Your task to perform on an android device: add a contact Image 0: 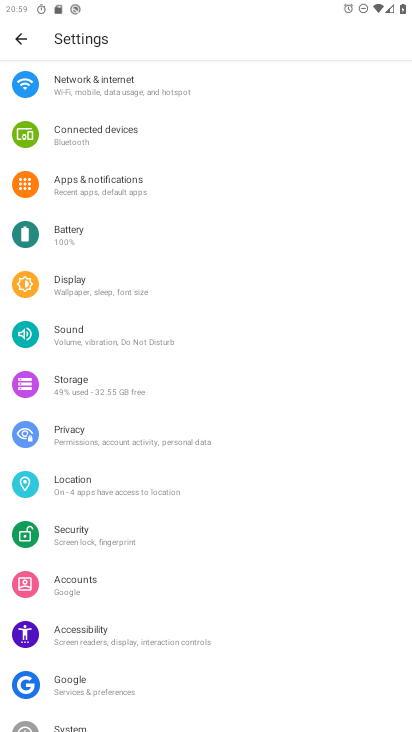
Step 0: drag from (164, 604) to (204, 373)
Your task to perform on an android device: add a contact Image 1: 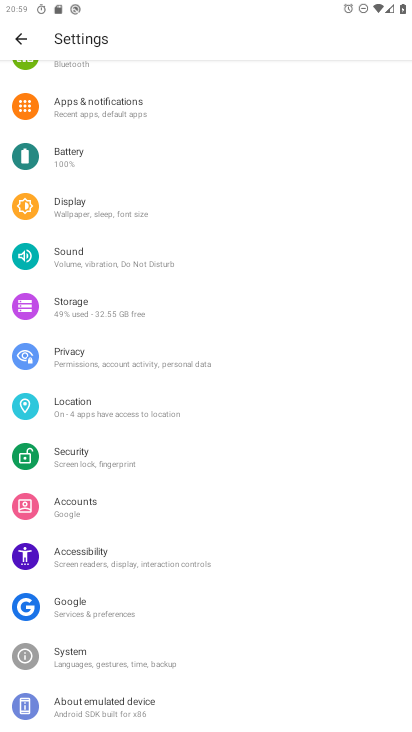
Step 1: press home button
Your task to perform on an android device: add a contact Image 2: 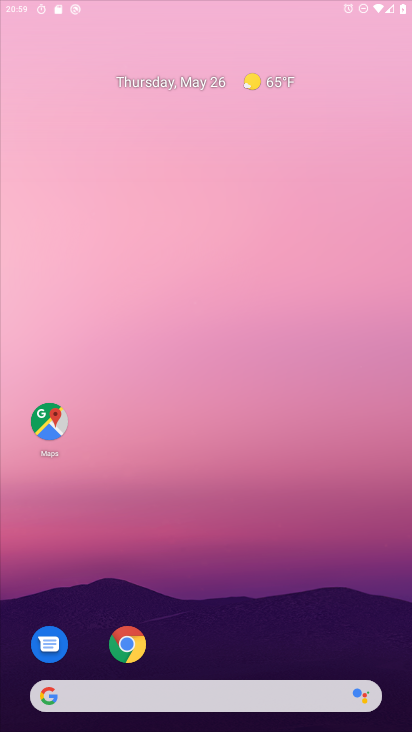
Step 2: drag from (185, 680) to (266, 386)
Your task to perform on an android device: add a contact Image 3: 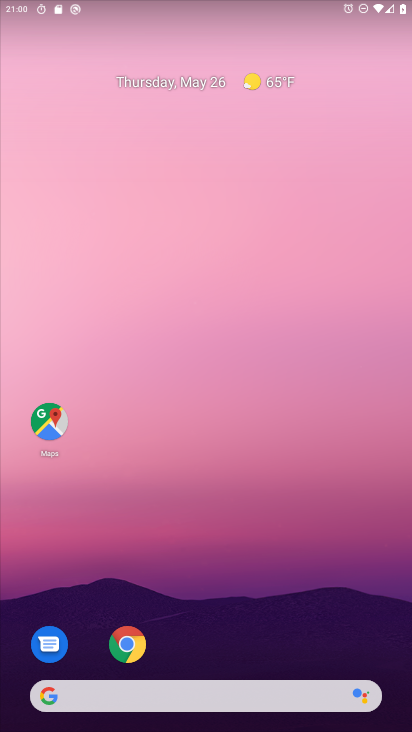
Step 3: drag from (189, 627) to (237, 298)
Your task to perform on an android device: add a contact Image 4: 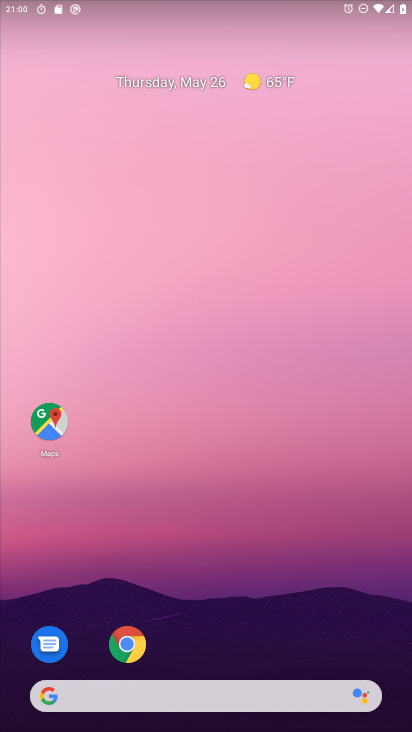
Step 4: drag from (191, 581) to (194, 245)
Your task to perform on an android device: add a contact Image 5: 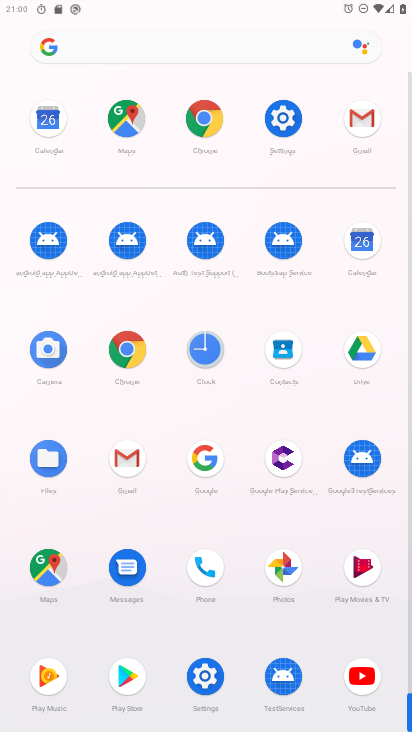
Step 5: click (274, 348)
Your task to perform on an android device: add a contact Image 6: 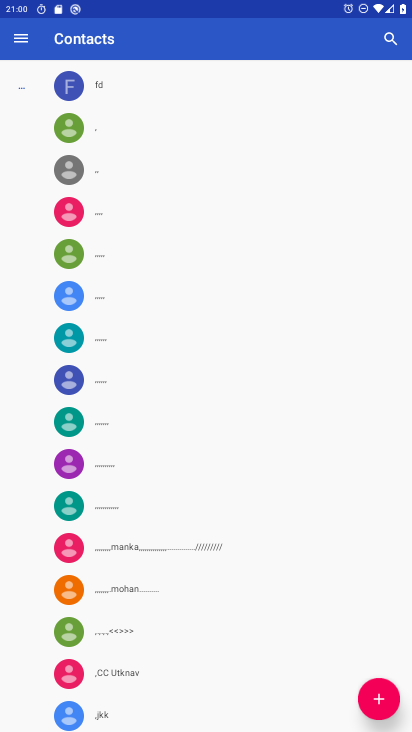
Step 6: click (370, 696)
Your task to perform on an android device: add a contact Image 7: 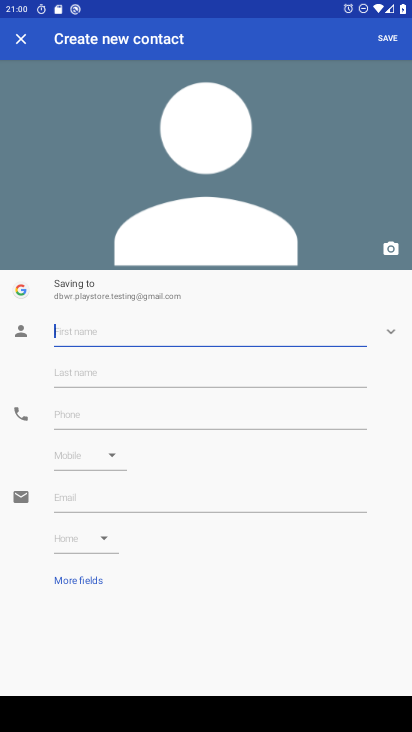
Step 7: click (130, 343)
Your task to perform on an android device: add a contact Image 8: 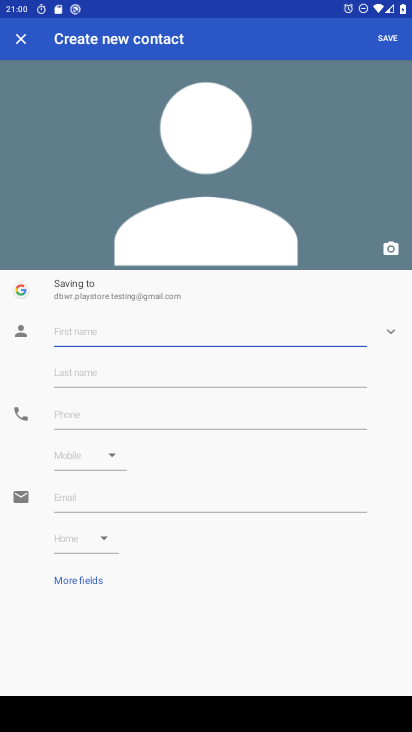
Step 8: type "nhjlk"
Your task to perform on an android device: add a contact Image 9: 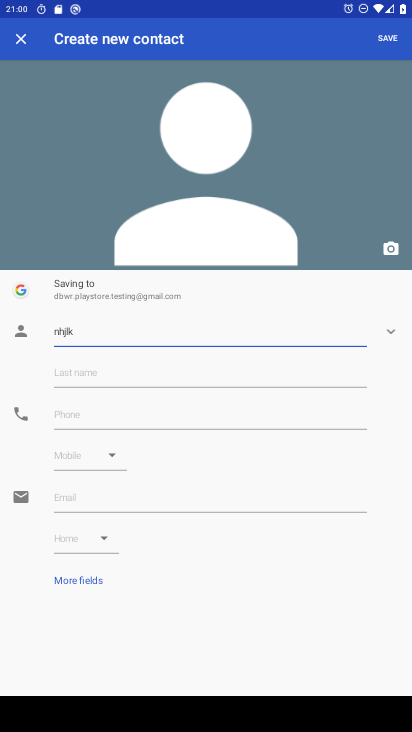
Step 9: click (401, 39)
Your task to perform on an android device: add a contact Image 10: 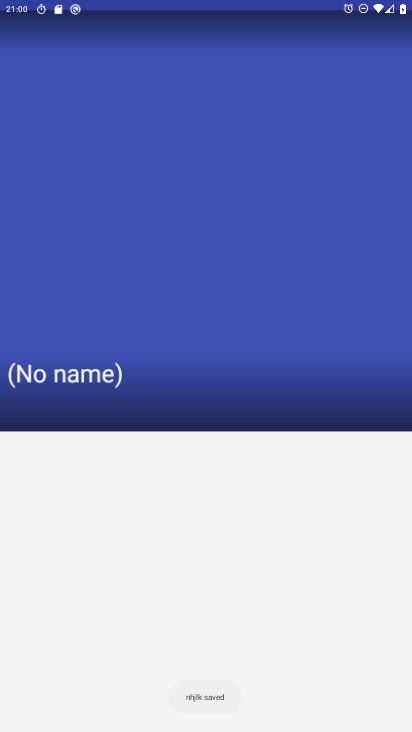
Step 10: task complete